Your task to perform on an android device: What's on my calendar tomorrow? Image 0: 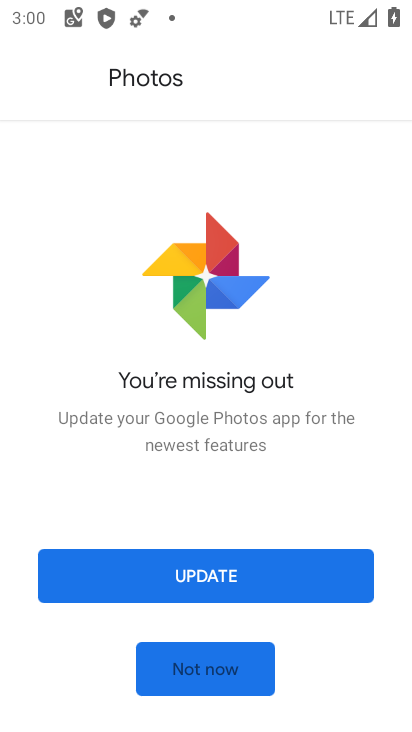
Step 0: press home button
Your task to perform on an android device: What's on my calendar tomorrow? Image 1: 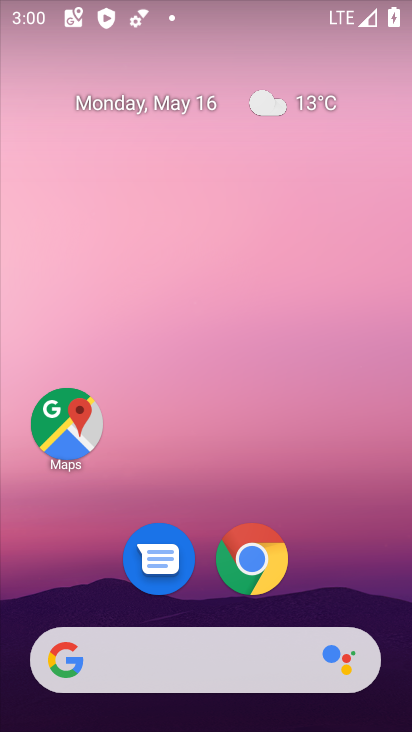
Step 1: drag from (242, 471) to (295, 3)
Your task to perform on an android device: What's on my calendar tomorrow? Image 2: 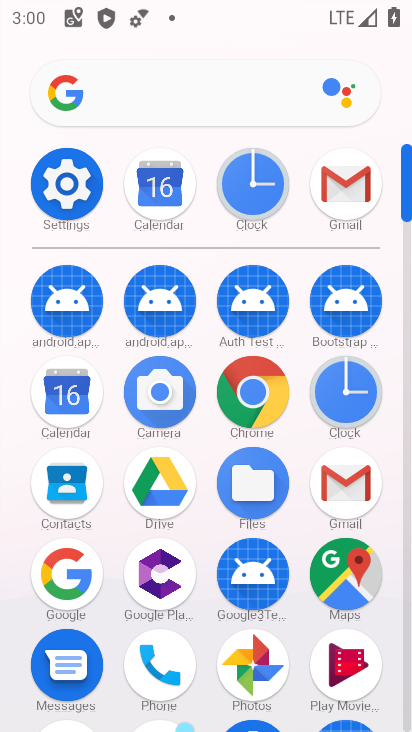
Step 2: click (65, 403)
Your task to perform on an android device: What's on my calendar tomorrow? Image 3: 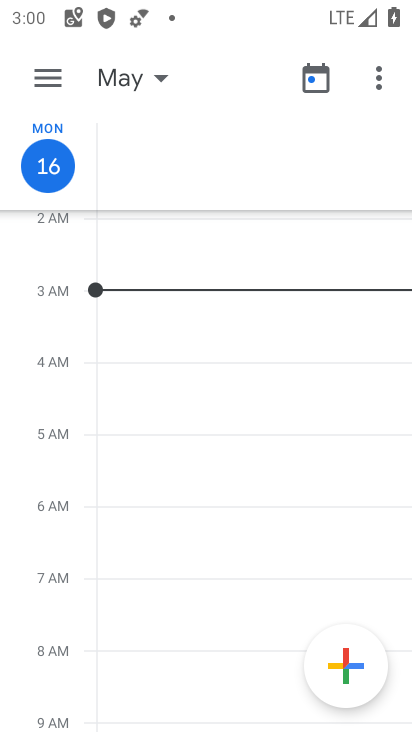
Step 3: click (55, 79)
Your task to perform on an android device: What's on my calendar tomorrow? Image 4: 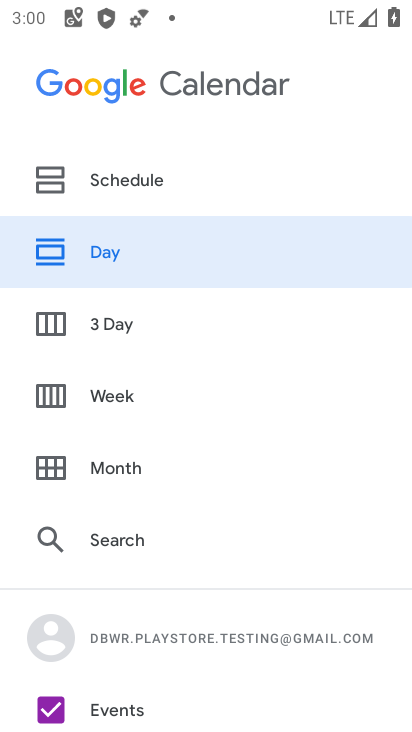
Step 4: click (114, 178)
Your task to perform on an android device: What's on my calendar tomorrow? Image 5: 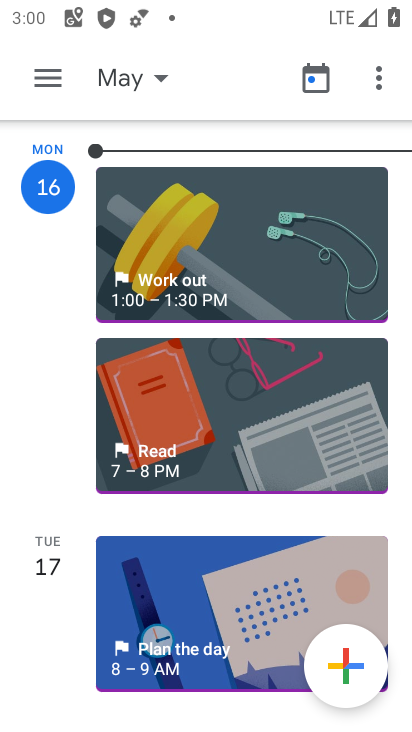
Step 5: drag from (148, 705) to (290, 123)
Your task to perform on an android device: What's on my calendar tomorrow? Image 6: 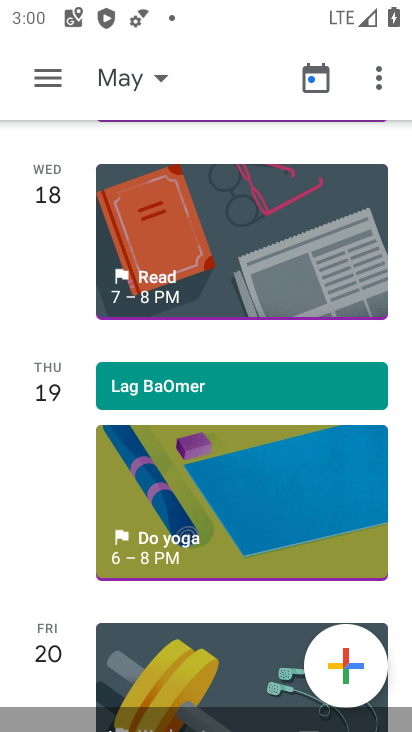
Step 6: drag from (188, 624) to (261, 143)
Your task to perform on an android device: What's on my calendar tomorrow? Image 7: 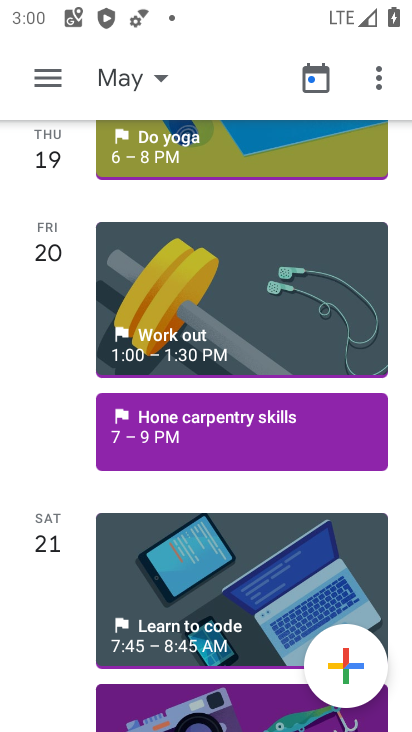
Step 7: drag from (184, 637) to (143, 720)
Your task to perform on an android device: What's on my calendar tomorrow? Image 8: 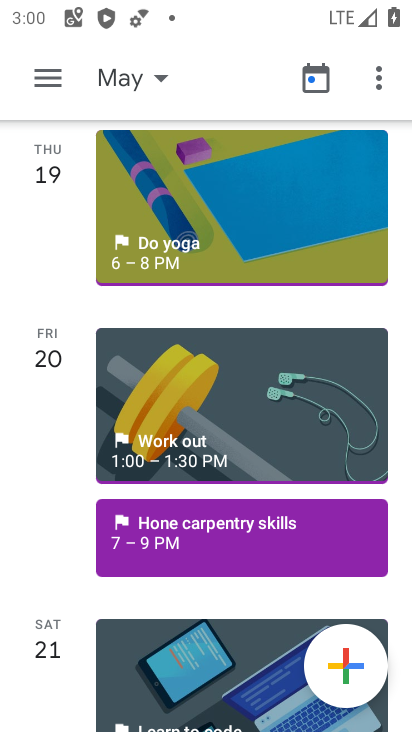
Step 8: drag from (226, 249) to (169, 730)
Your task to perform on an android device: What's on my calendar tomorrow? Image 9: 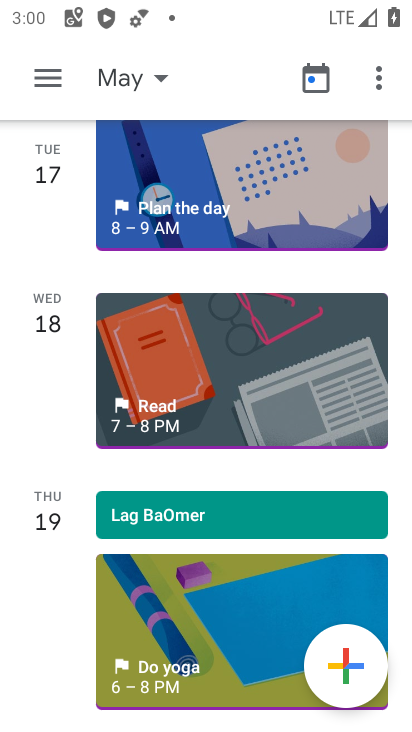
Step 9: drag from (218, 221) to (150, 725)
Your task to perform on an android device: What's on my calendar tomorrow? Image 10: 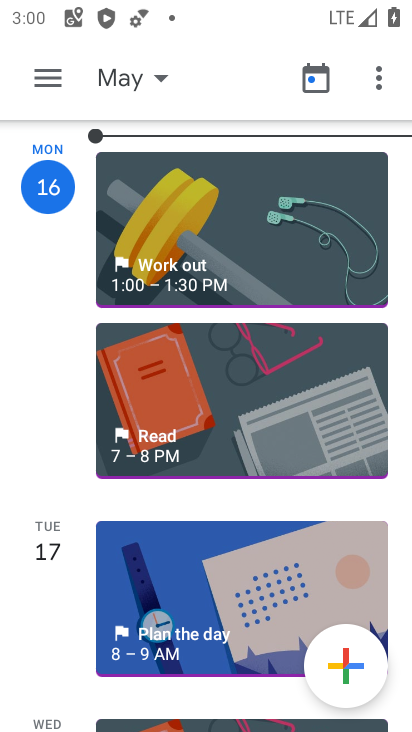
Step 10: click (187, 233)
Your task to perform on an android device: What's on my calendar tomorrow? Image 11: 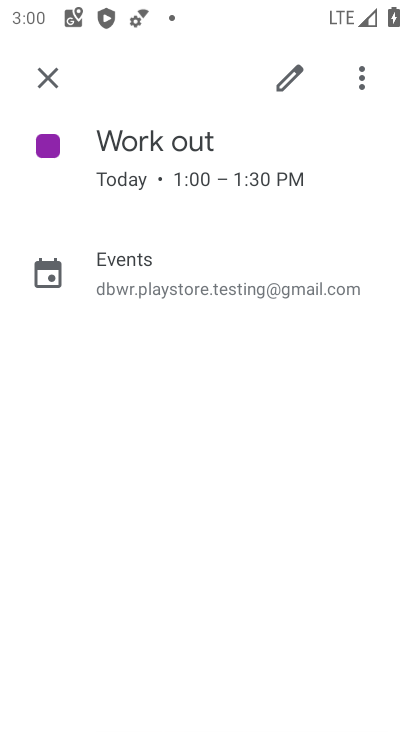
Step 11: task complete